Your task to perform on an android device: turn off wifi Image 0: 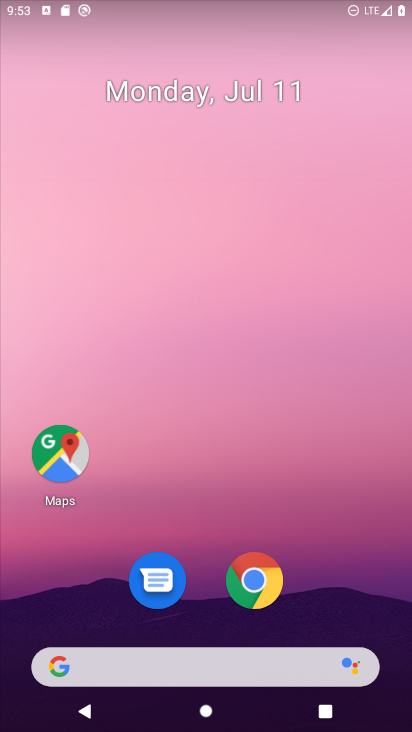
Step 0: drag from (269, 498) to (263, 25)
Your task to perform on an android device: turn off wifi Image 1: 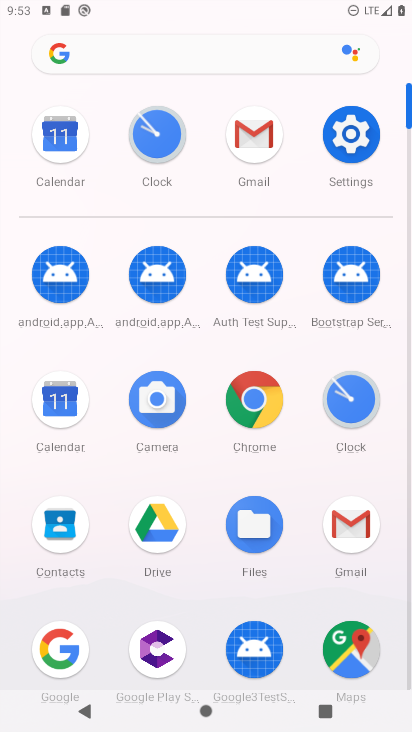
Step 1: click (351, 149)
Your task to perform on an android device: turn off wifi Image 2: 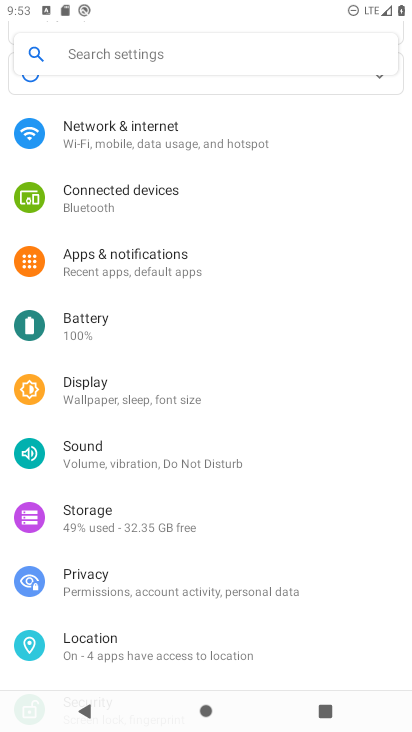
Step 2: click (157, 133)
Your task to perform on an android device: turn off wifi Image 3: 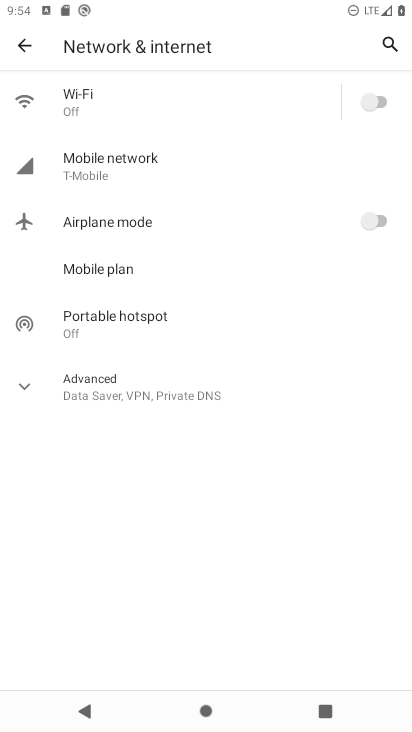
Step 3: task complete